Your task to perform on an android device: turn on showing notifications on the lock screen Image 0: 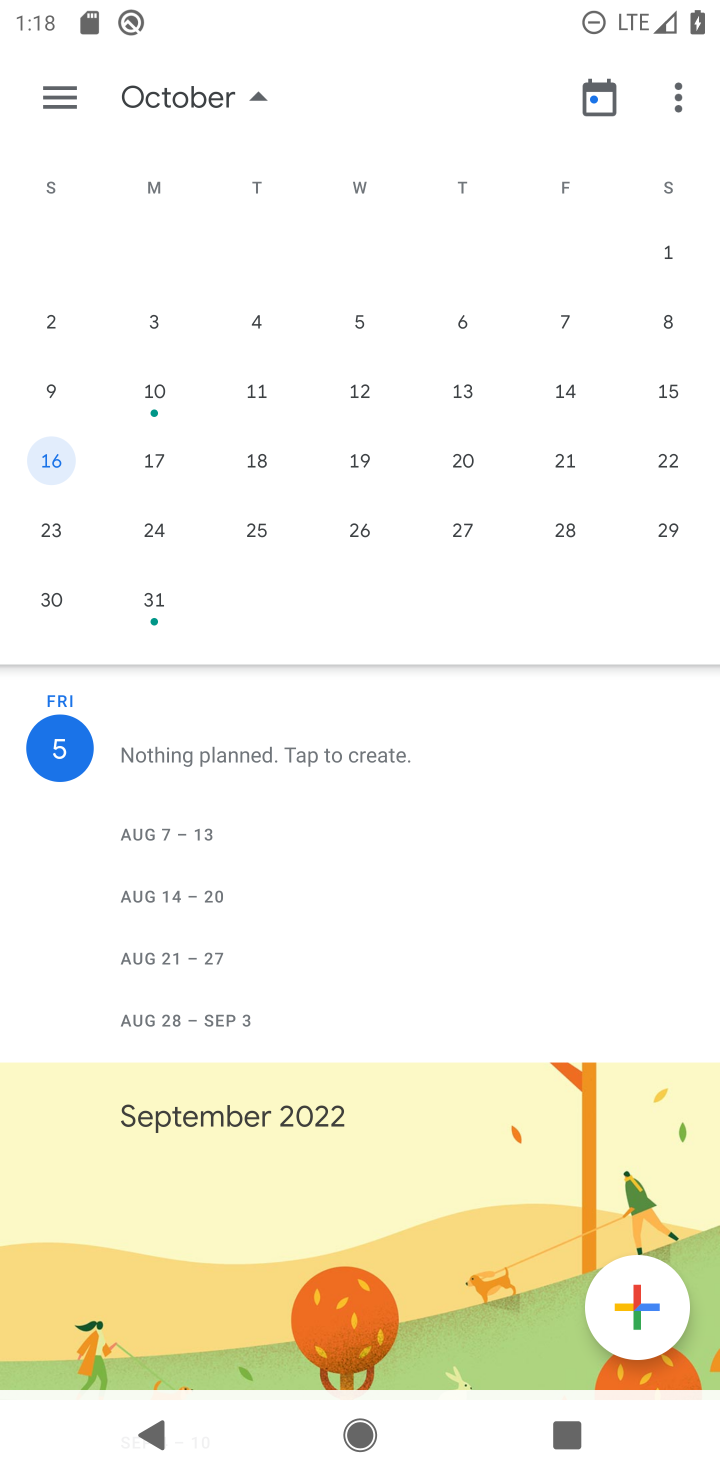
Step 0: press home button
Your task to perform on an android device: turn on showing notifications on the lock screen Image 1: 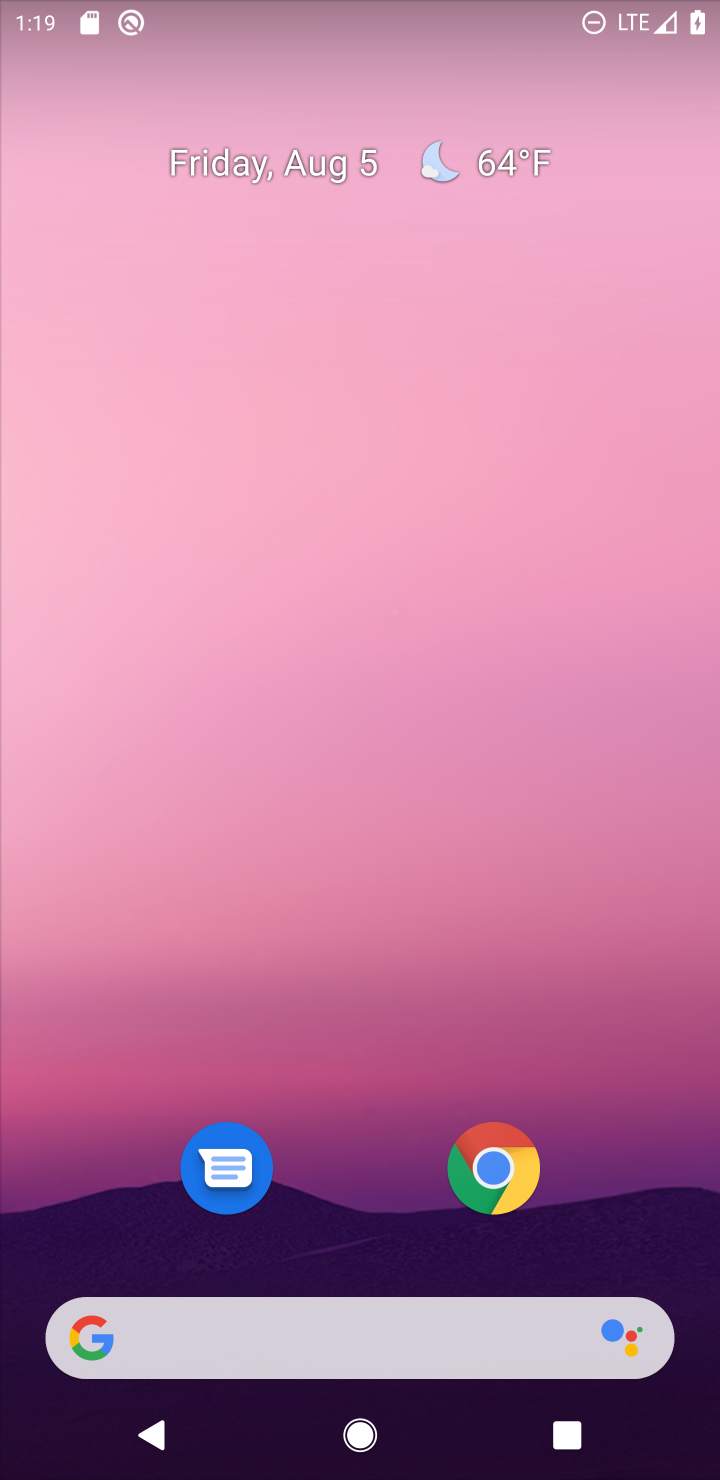
Step 1: drag from (626, 1235) to (292, 62)
Your task to perform on an android device: turn on showing notifications on the lock screen Image 2: 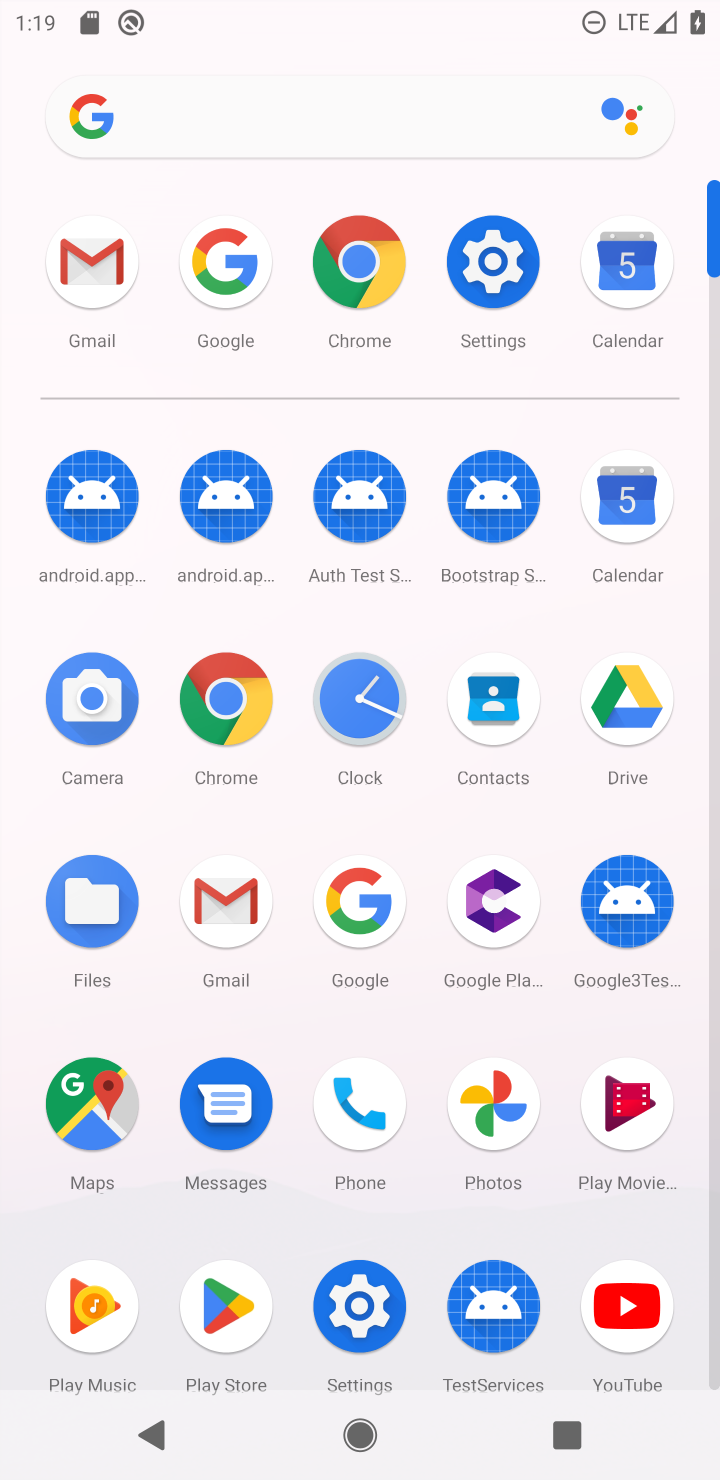
Step 2: click (470, 267)
Your task to perform on an android device: turn on showing notifications on the lock screen Image 3: 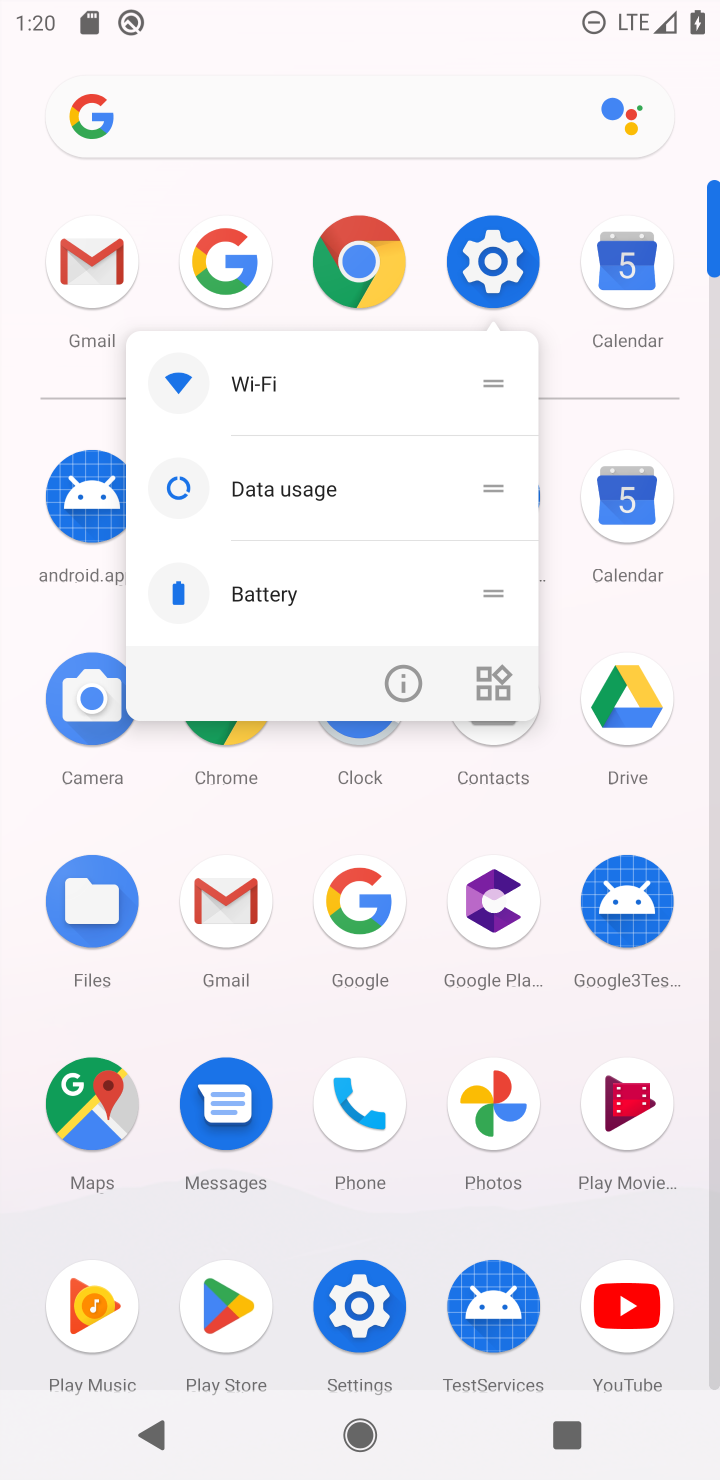
Step 3: click (321, 1325)
Your task to perform on an android device: turn on showing notifications on the lock screen Image 4: 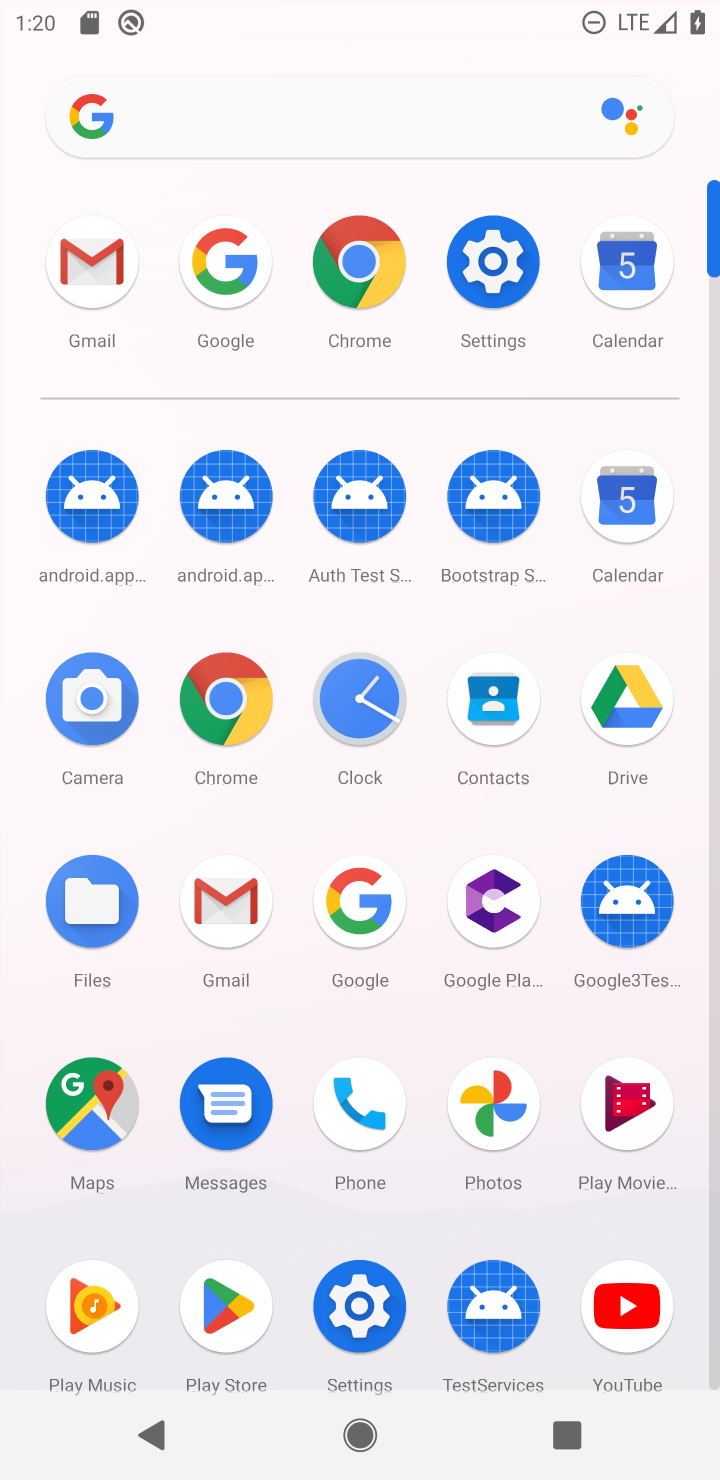
Step 4: click (371, 1308)
Your task to perform on an android device: turn on showing notifications on the lock screen Image 5: 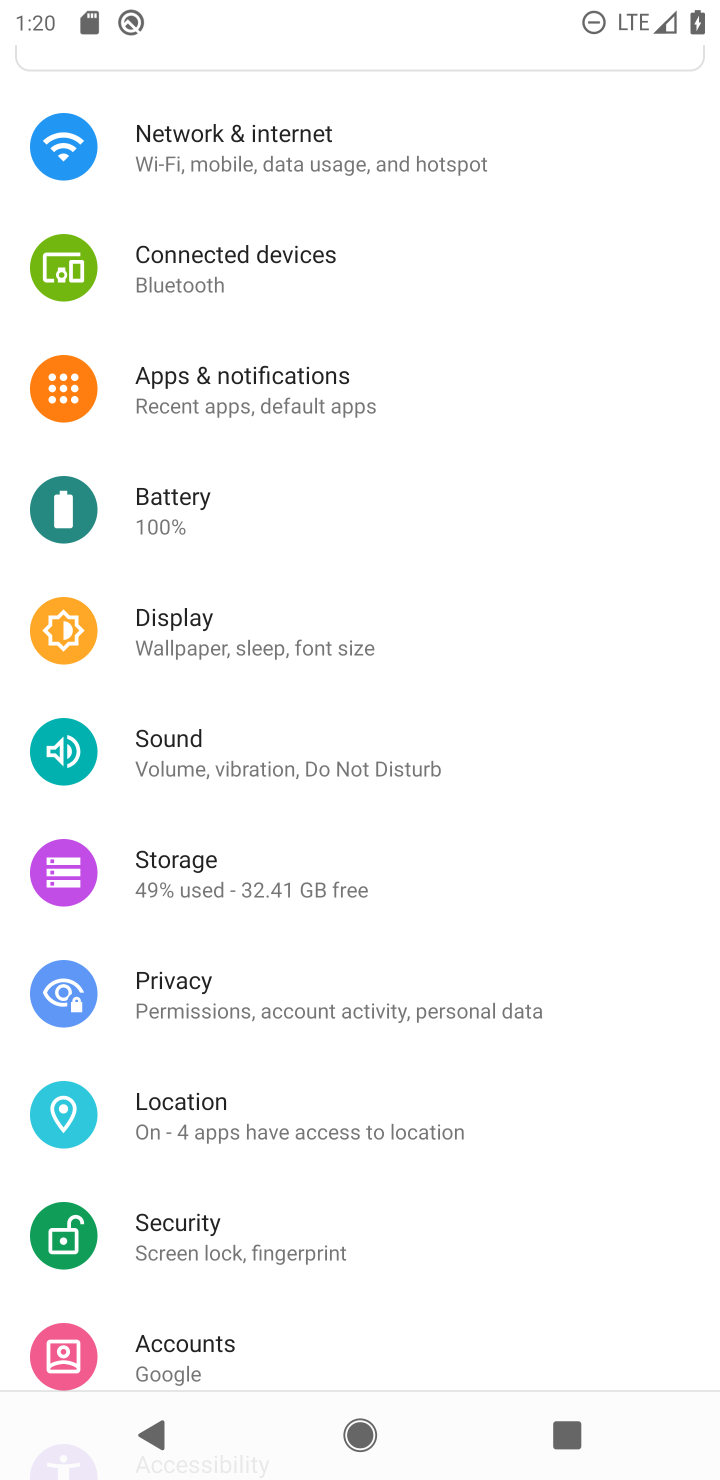
Step 5: click (222, 409)
Your task to perform on an android device: turn on showing notifications on the lock screen Image 6: 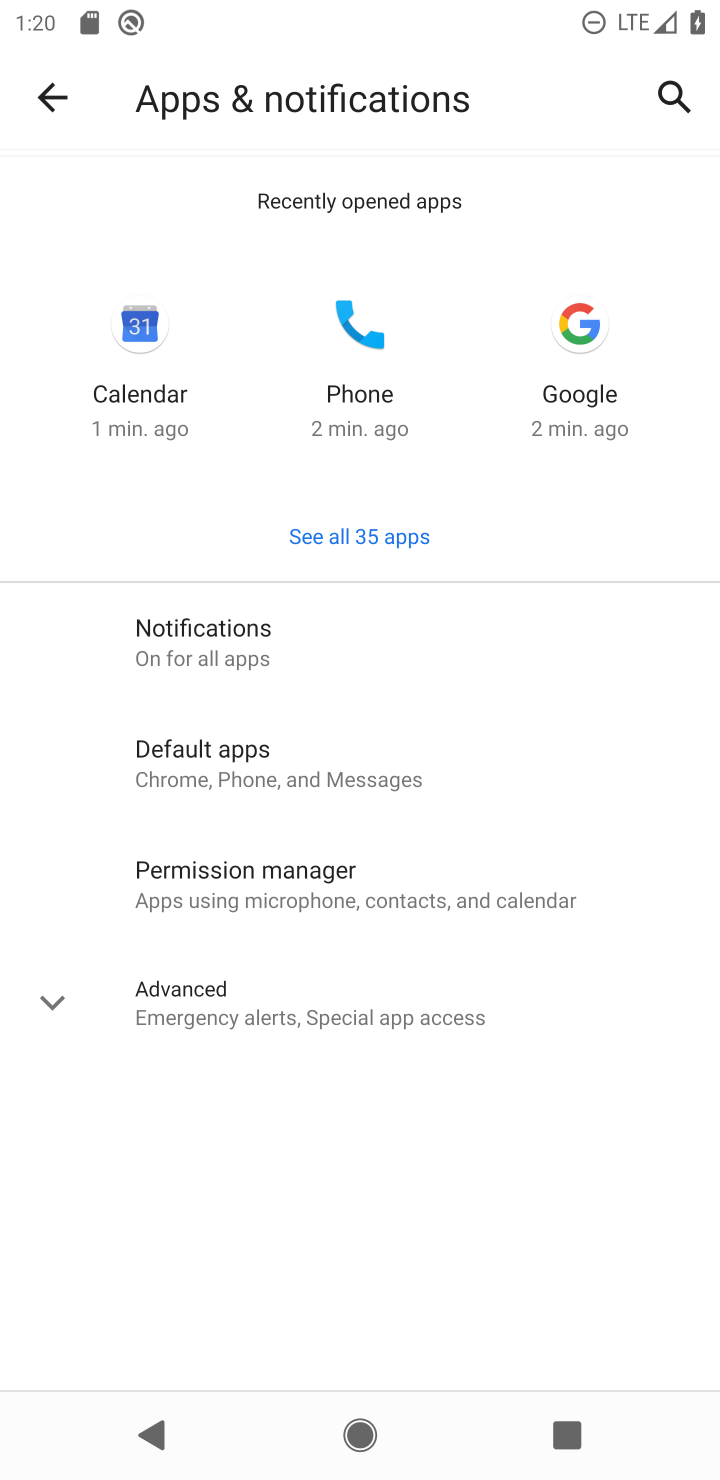
Step 6: click (121, 997)
Your task to perform on an android device: turn on showing notifications on the lock screen Image 7: 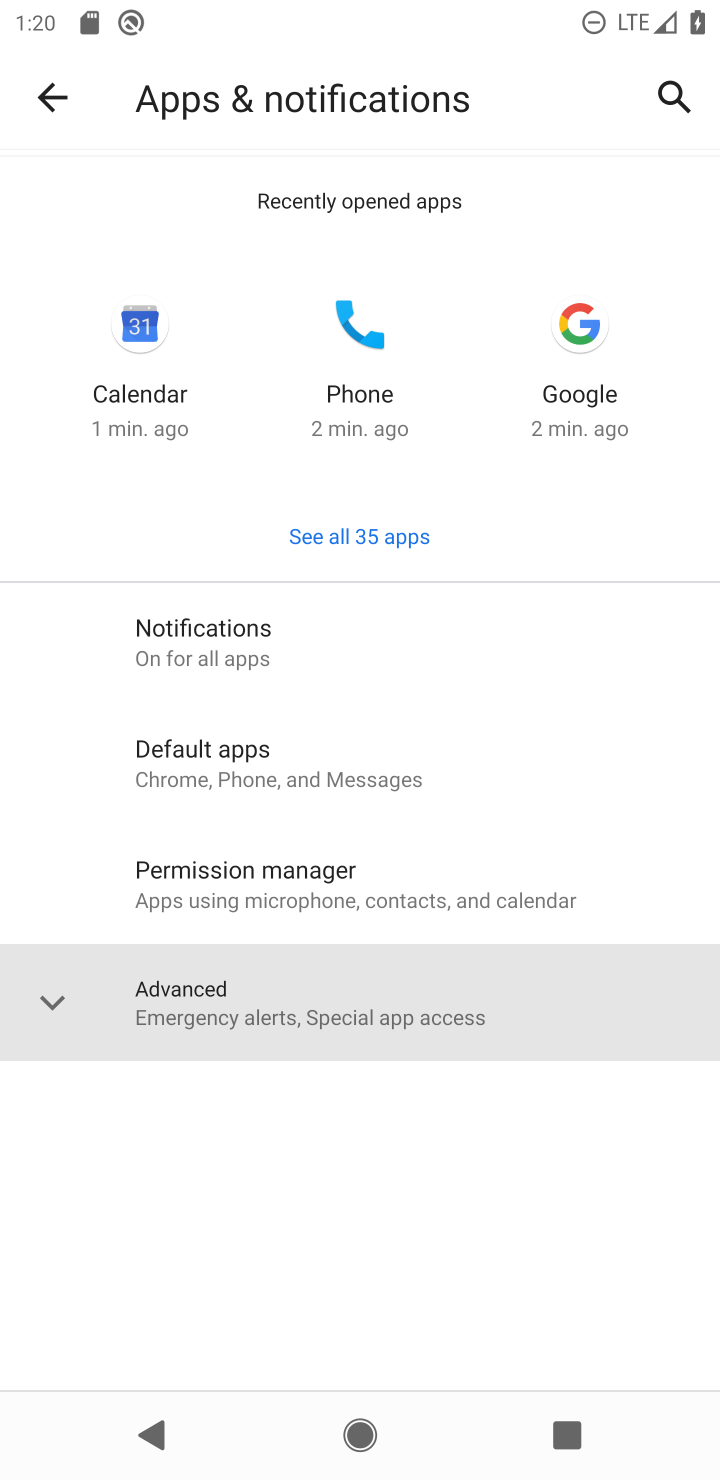
Step 7: click (213, 624)
Your task to perform on an android device: turn on showing notifications on the lock screen Image 8: 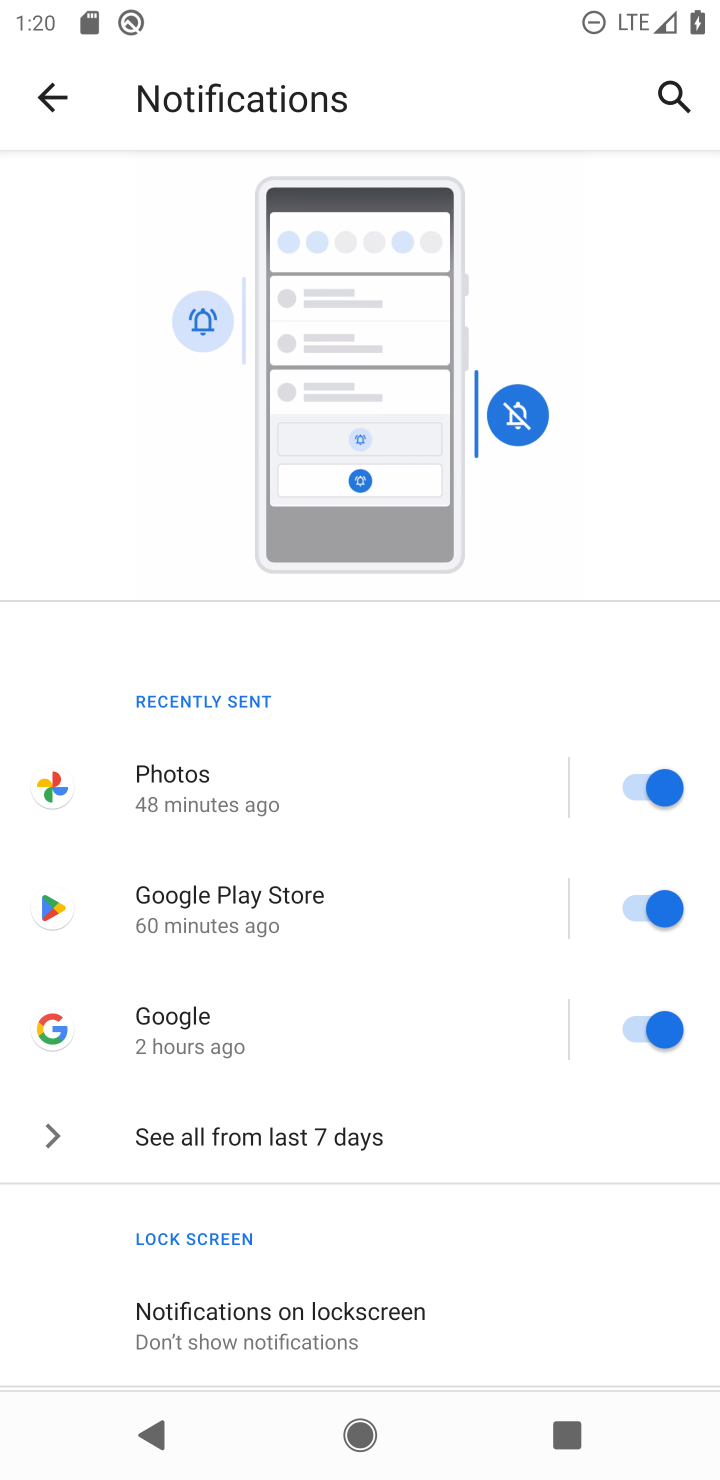
Step 8: click (341, 1344)
Your task to perform on an android device: turn on showing notifications on the lock screen Image 9: 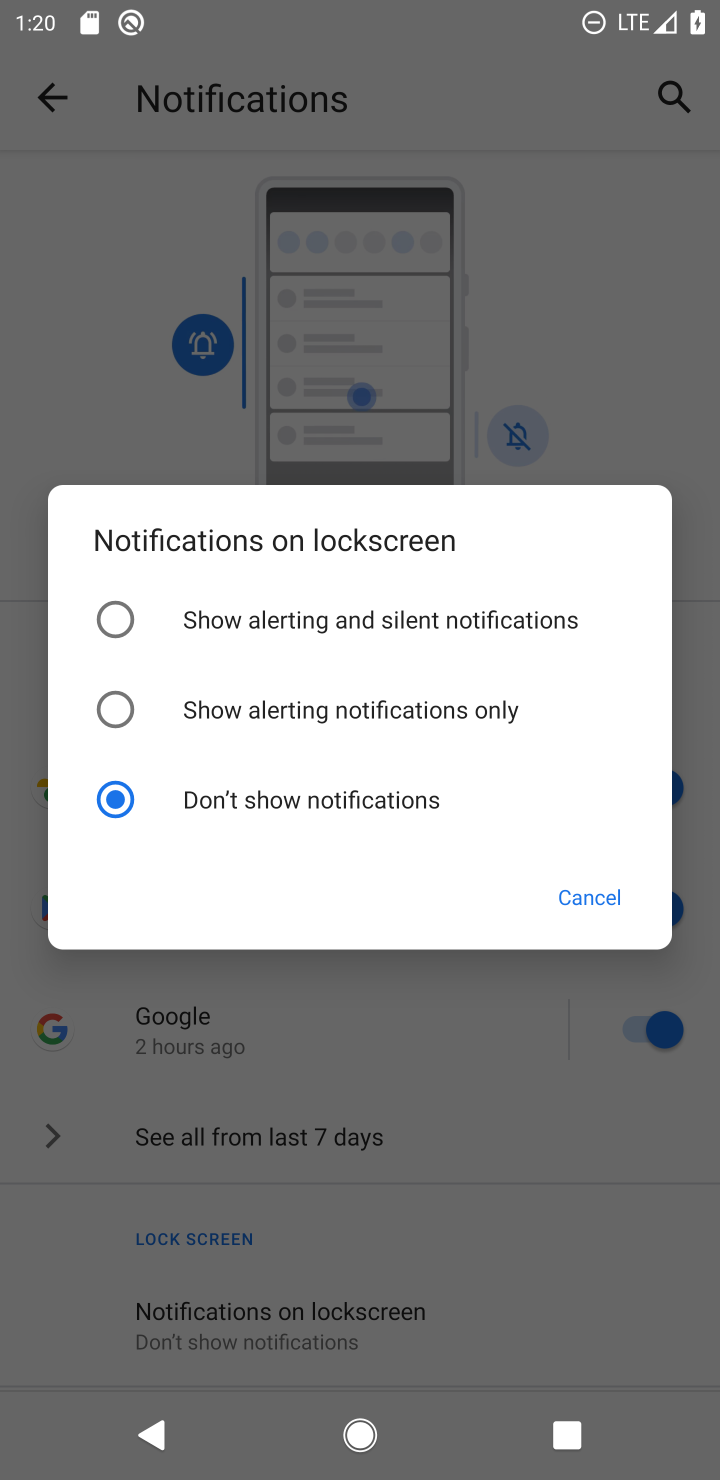
Step 9: click (138, 623)
Your task to perform on an android device: turn on showing notifications on the lock screen Image 10: 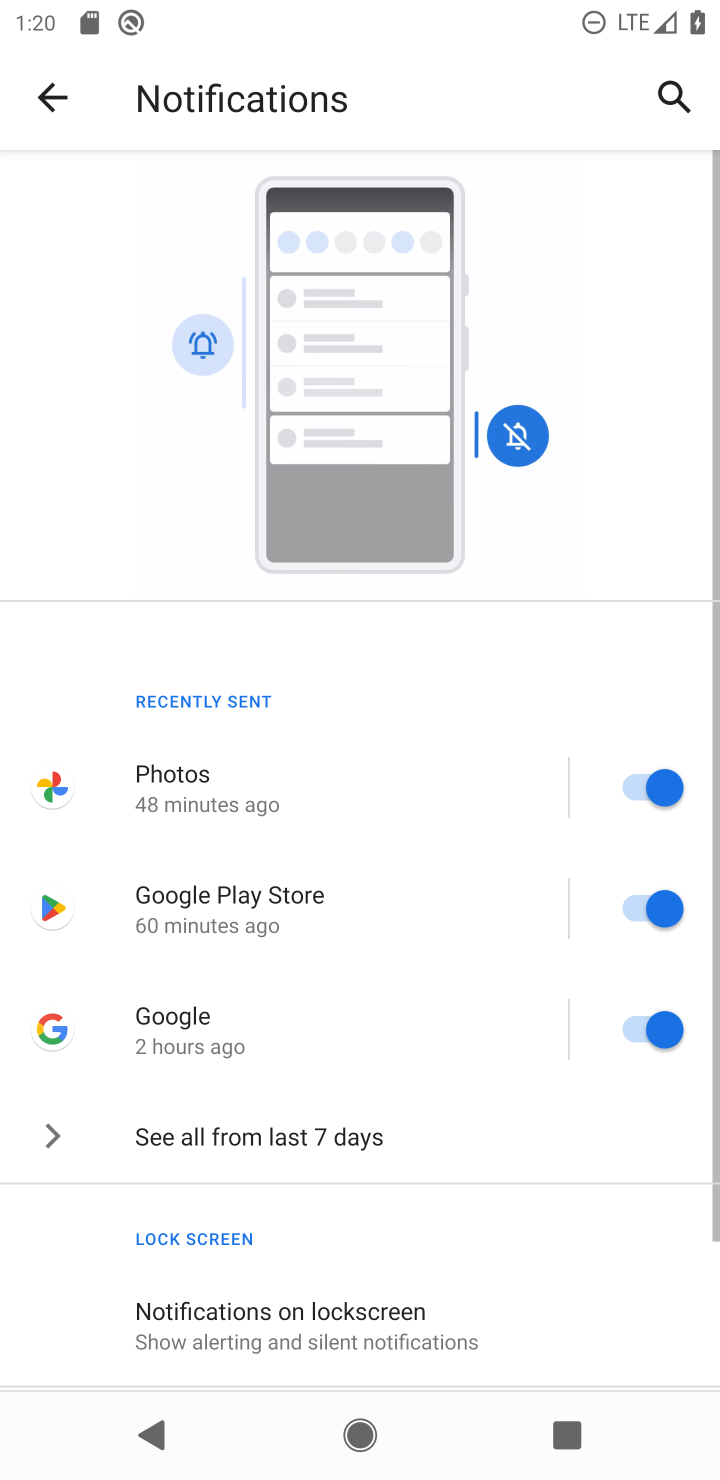
Step 10: task complete